Your task to perform on an android device: Open Google Chrome and open the bookmarks view Image 0: 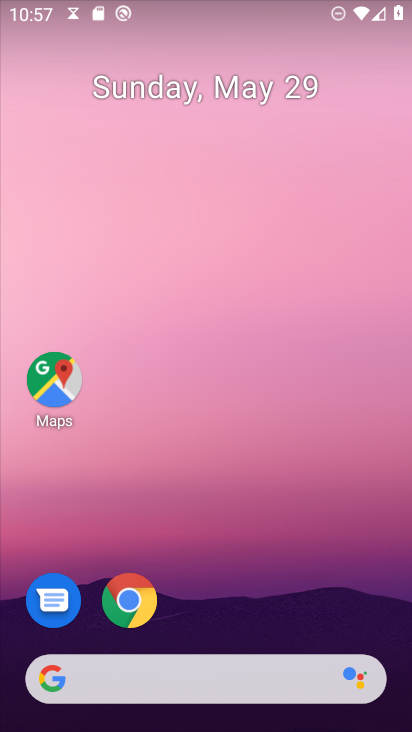
Step 0: click (130, 616)
Your task to perform on an android device: Open Google Chrome and open the bookmarks view Image 1: 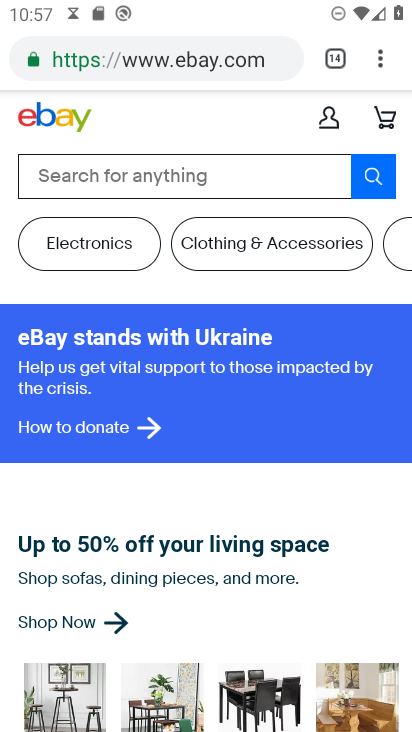
Step 1: click (381, 64)
Your task to perform on an android device: Open Google Chrome and open the bookmarks view Image 2: 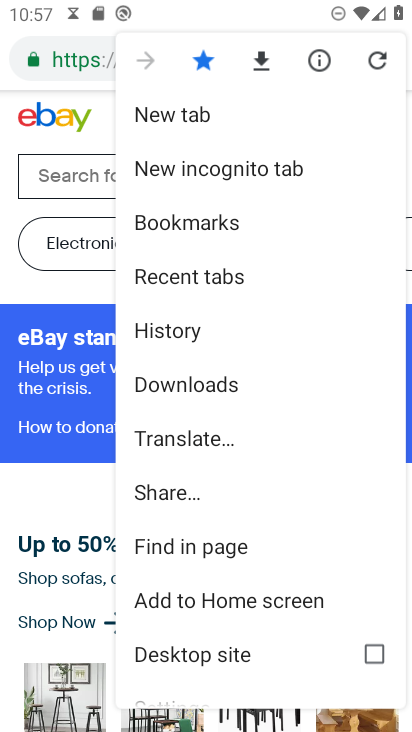
Step 2: click (185, 222)
Your task to perform on an android device: Open Google Chrome and open the bookmarks view Image 3: 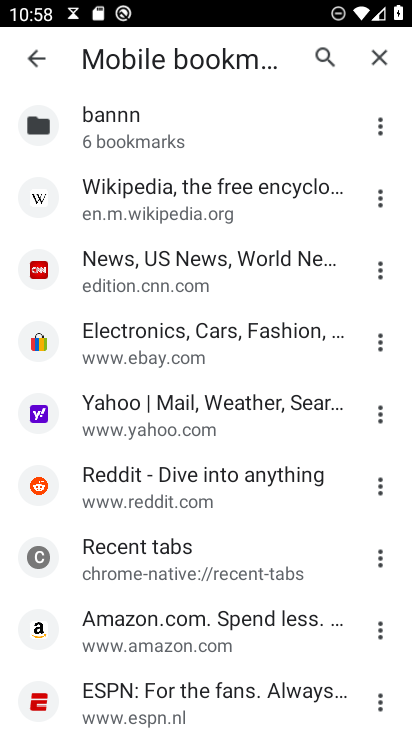
Step 3: task complete